Your task to perform on an android device: Go to location settings Image 0: 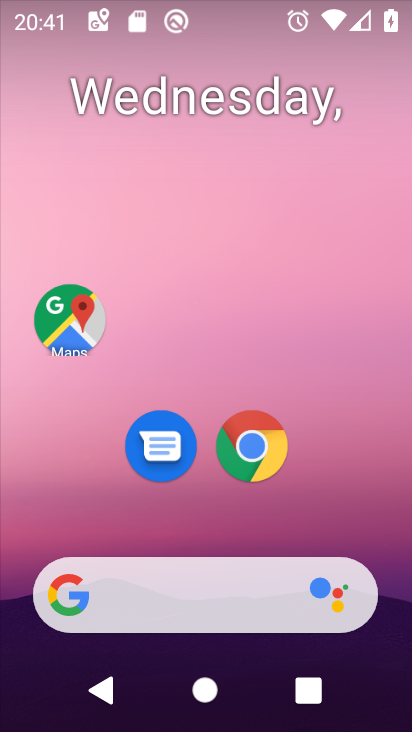
Step 0: click (157, 98)
Your task to perform on an android device: Go to location settings Image 1: 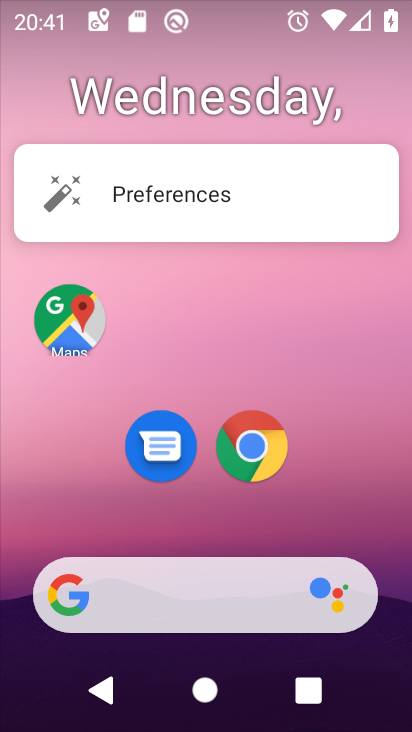
Step 1: click (228, 149)
Your task to perform on an android device: Go to location settings Image 2: 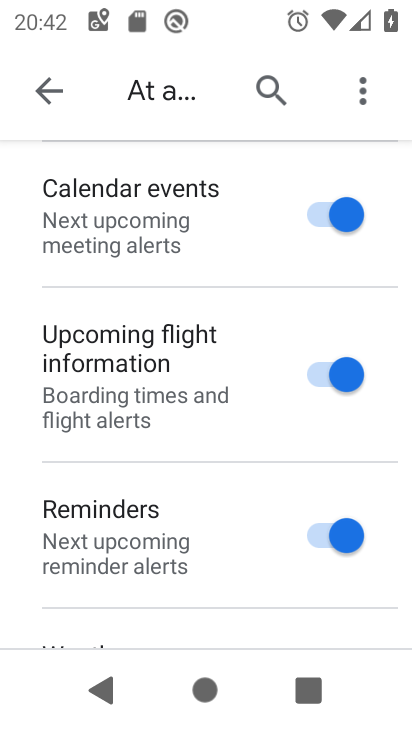
Step 2: click (208, 83)
Your task to perform on an android device: Go to location settings Image 3: 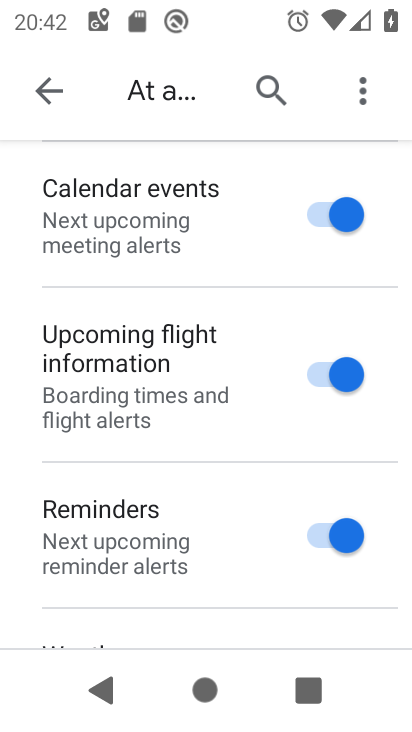
Step 3: press home button
Your task to perform on an android device: Go to location settings Image 4: 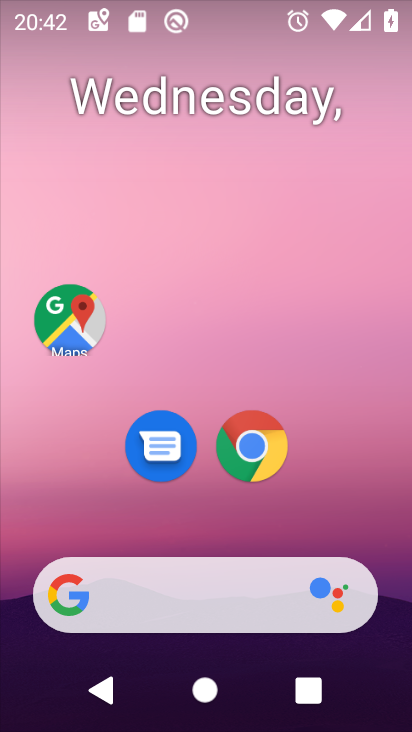
Step 4: press home button
Your task to perform on an android device: Go to location settings Image 5: 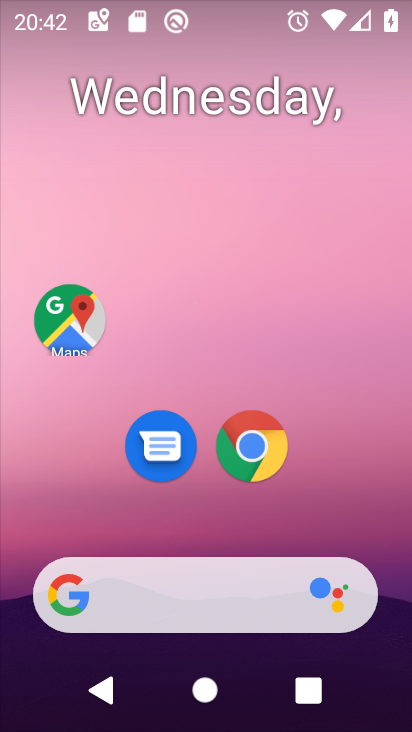
Step 5: drag from (192, 367) to (157, 123)
Your task to perform on an android device: Go to location settings Image 6: 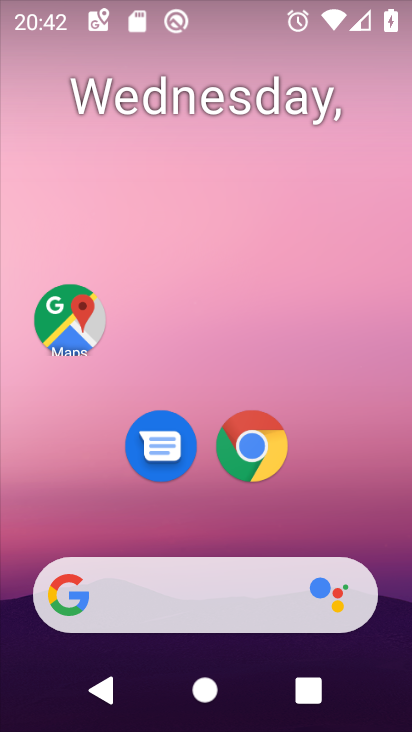
Step 6: drag from (163, 443) to (208, 119)
Your task to perform on an android device: Go to location settings Image 7: 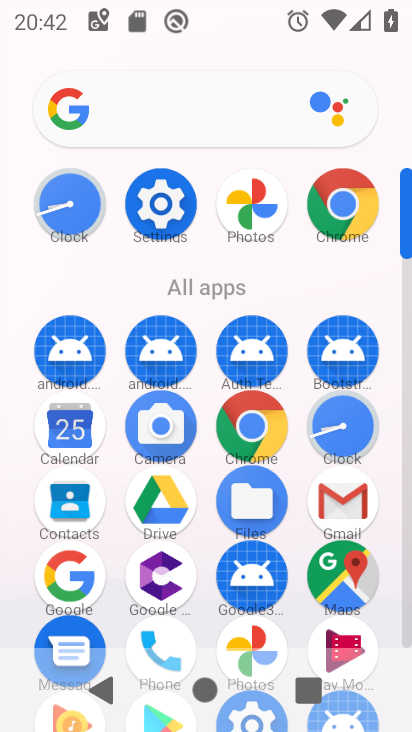
Step 7: click (146, 230)
Your task to perform on an android device: Go to location settings Image 8: 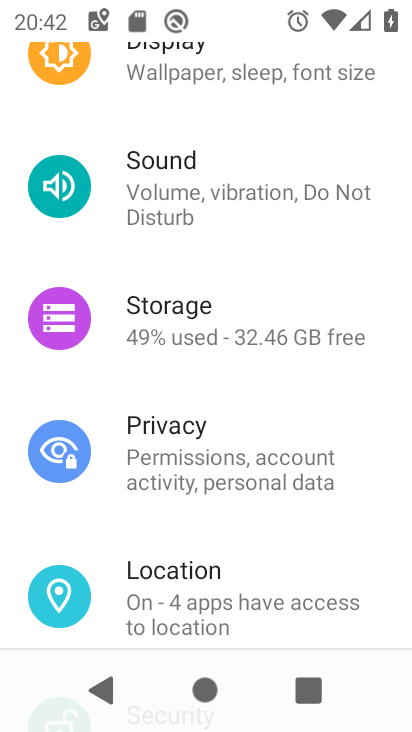
Step 8: click (164, 577)
Your task to perform on an android device: Go to location settings Image 9: 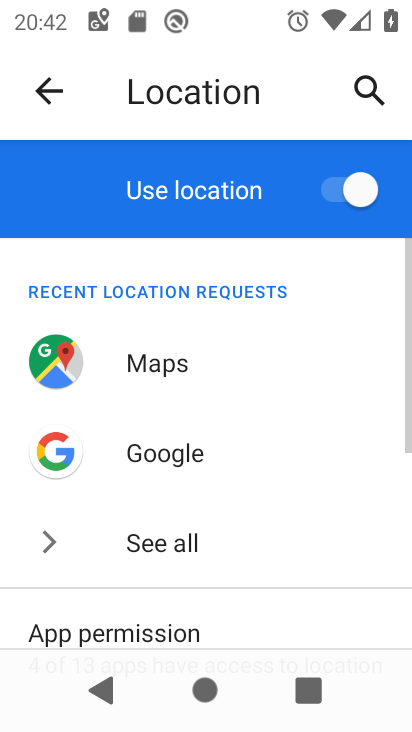
Step 9: task complete